Your task to perform on an android device: What is the recent news? Image 0: 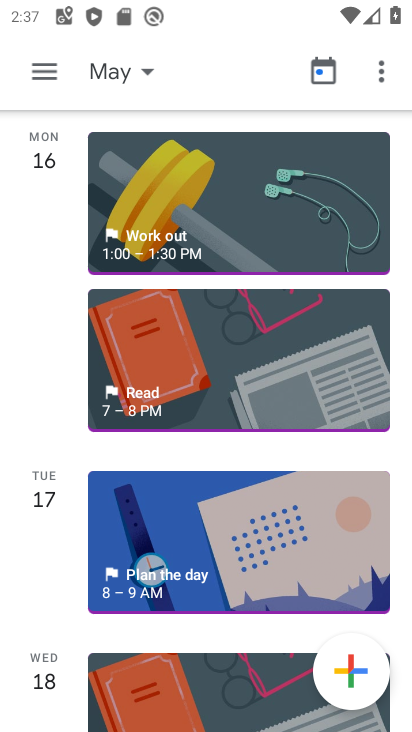
Step 0: press home button
Your task to perform on an android device: What is the recent news? Image 1: 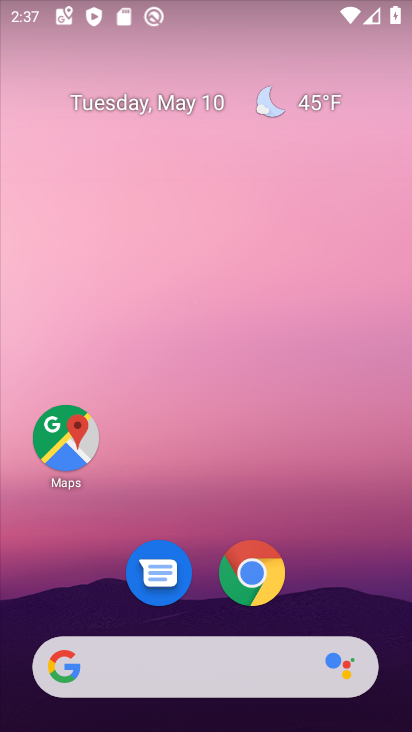
Step 1: drag from (200, 610) to (215, 208)
Your task to perform on an android device: What is the recent news? Image 2: 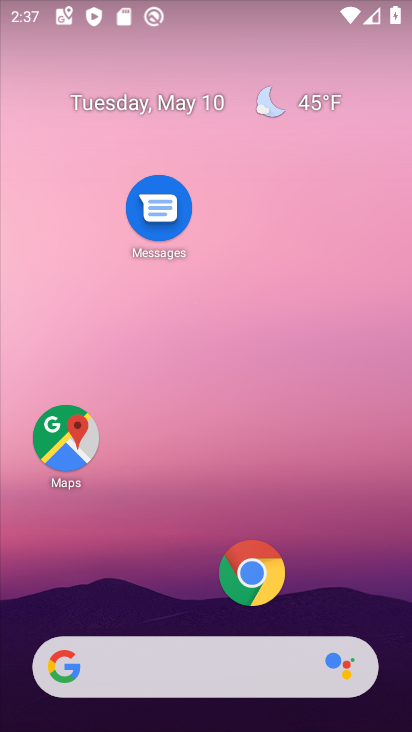
Step 2: drag from (193, 613) to (225, 216)
Your task to perform on an android device: What is the recent news? Image 3: 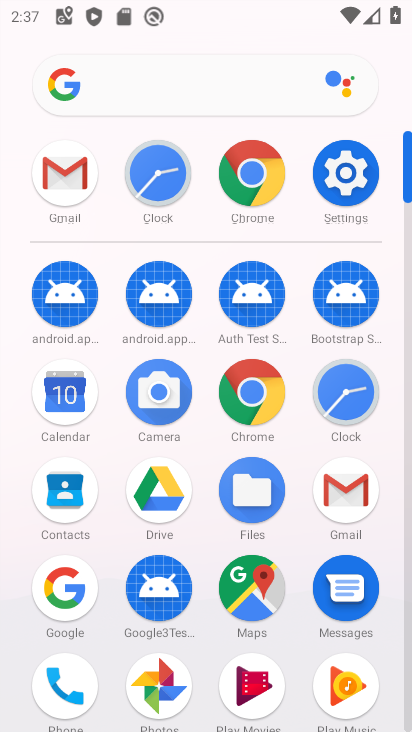
Step 3: click (66, 604)
Your task to perform on an android device: What is the recent news? Image 4: 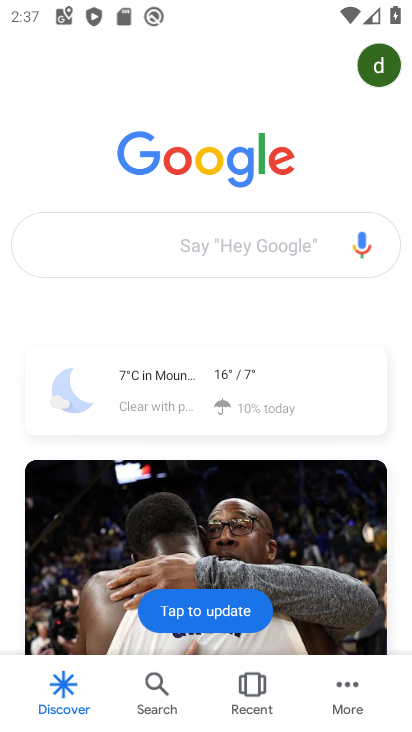
Step 4: click (204, 252)
Your task to perform on an android device: What is the recent news? Image 5: 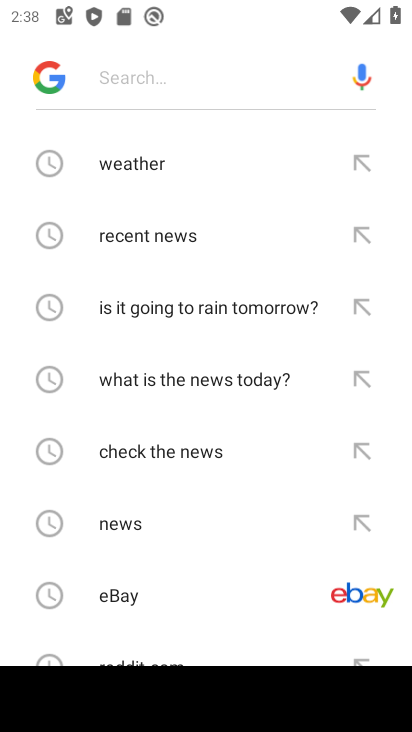
Step 5: type "recent news"
Your task to perform on an android device: What is the recent news? Image 6: 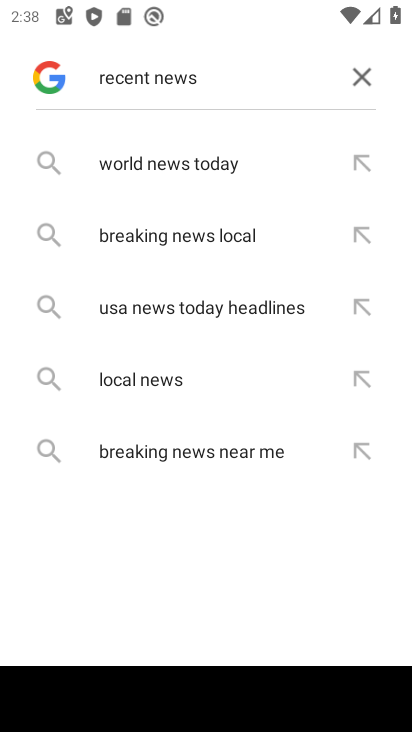
Step 6: click (352, 73)
Your task to perform on an android device: What is the recent news? Image 7: 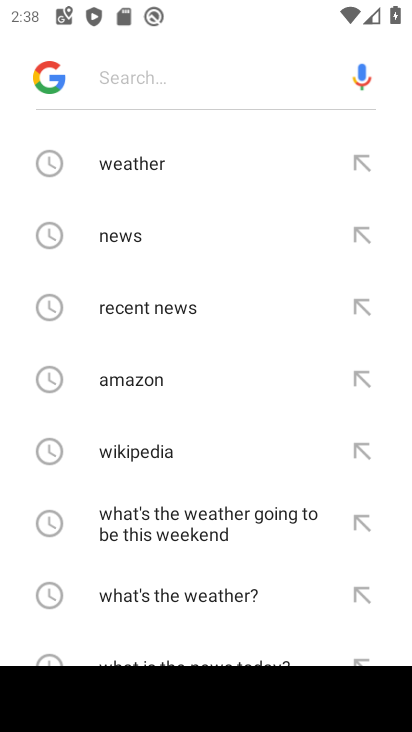
Step 7: click (144, 319)
Your task to perform on an android device: What is the recent news? Image 8: 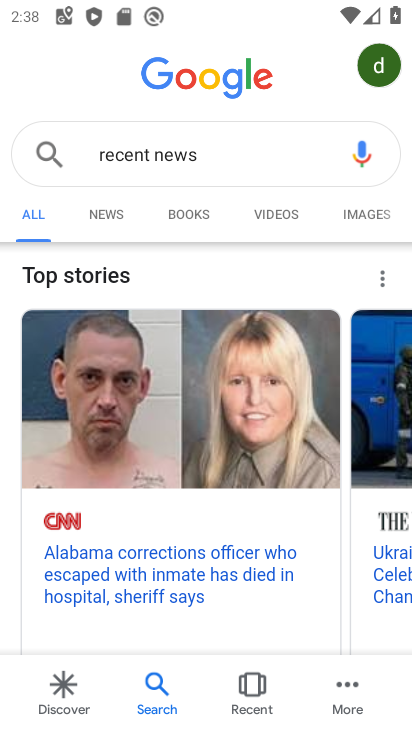
Step 8: click (102, 217)
Your task to perform on an android device: What is the recent news? Image 9: 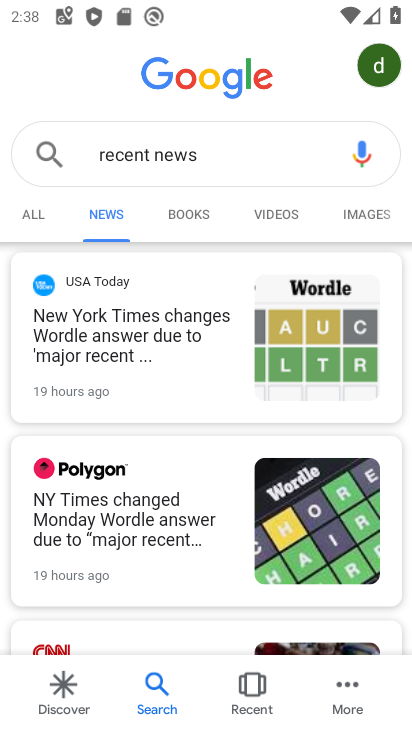
Step 9: task complete